Your task to perform on an android device: Search for Mexican restaurants on Maps Image 0: 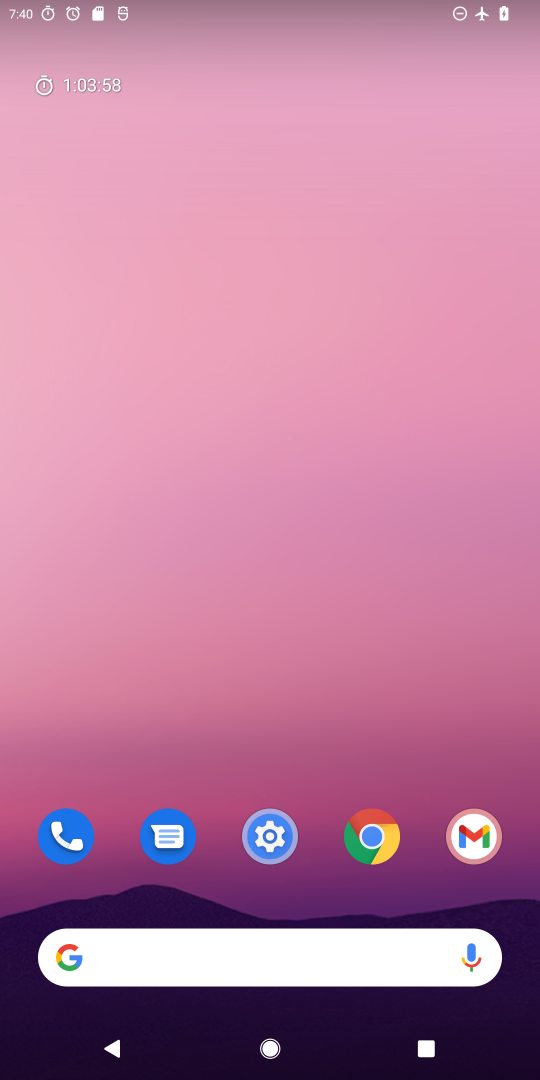
Step 0: drag from (320, 696) to (340, 16)
Your task to perform on an android device: Search for Mexican restaurants on Maps Image 1: 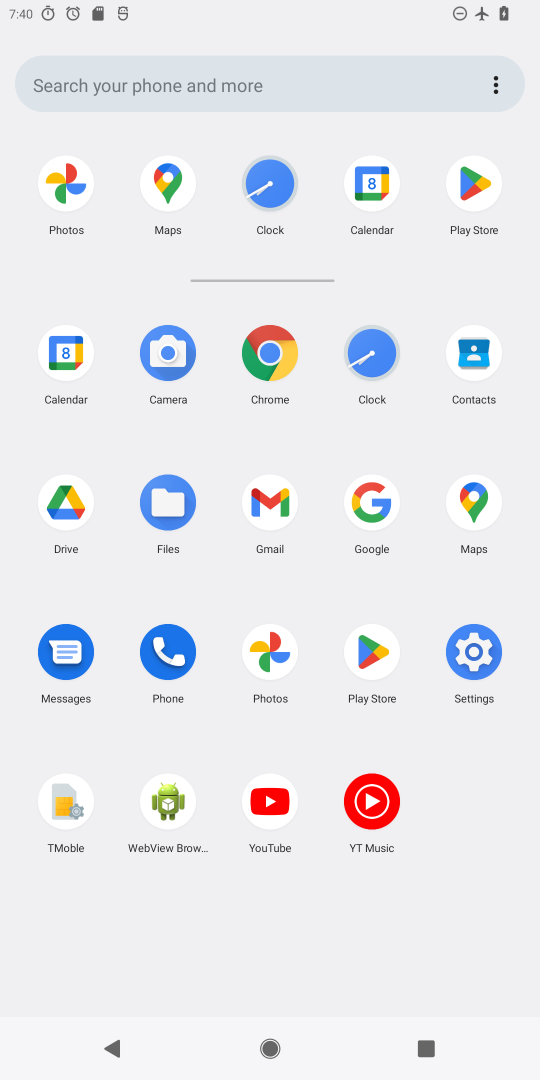
Step 1: click (472, 517)
Your task to perform on an android device: Search for Mexican restaurants on Maps Image 2: 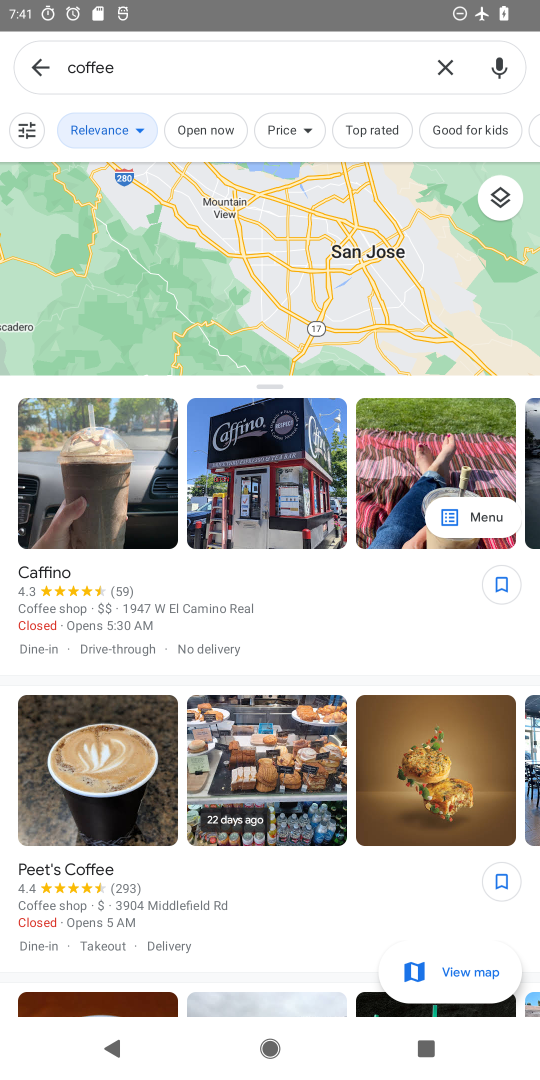
Step 2: click (445, 71)
Your task to perform on an android device: Search for Mexican restaurants on Maps Image 3: 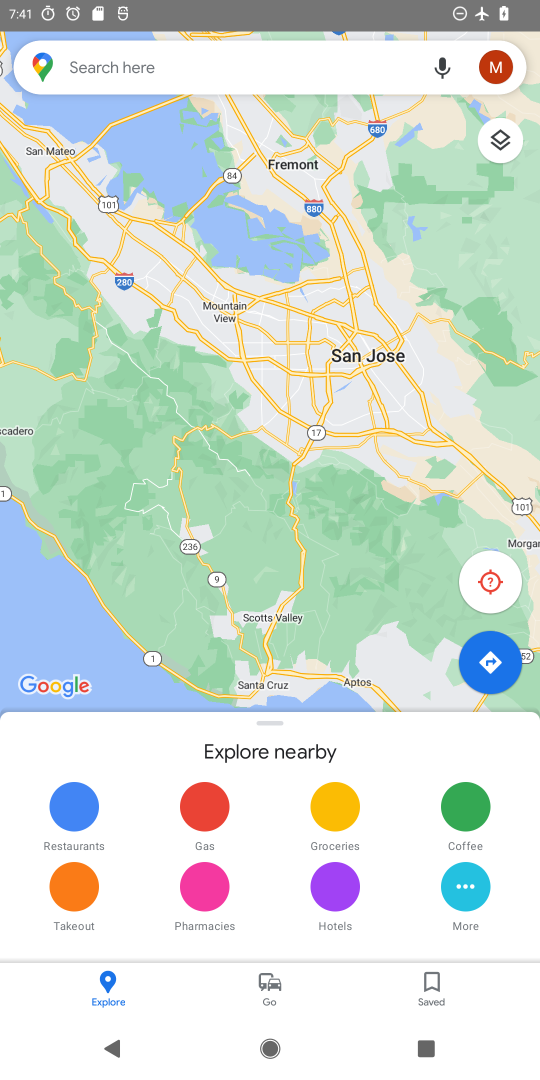
Step 3: click (255, 58)
Your task to perform on an android device: Search for Mexican restaurants on Maps Image 4: 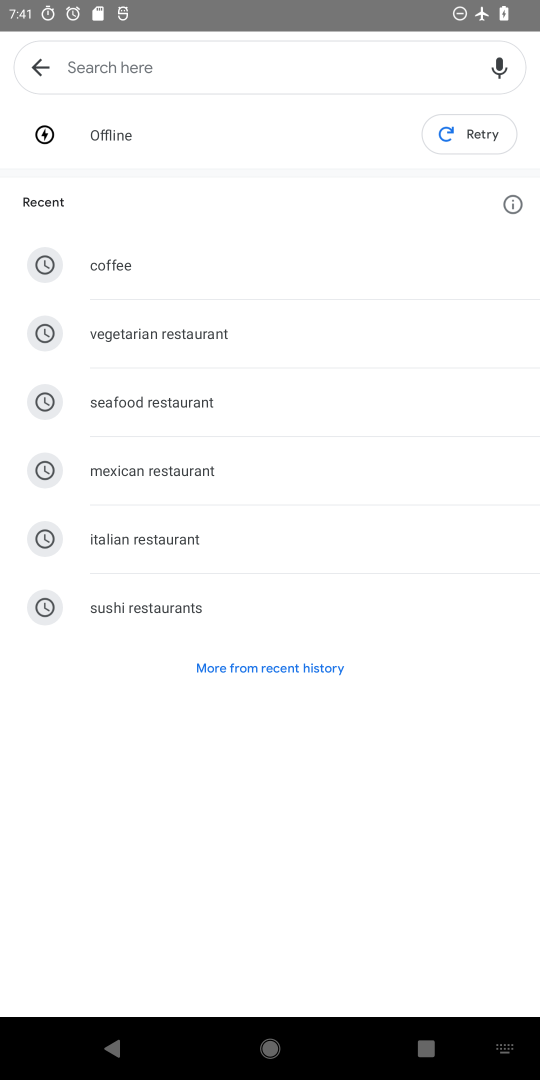
Step 4: click (247, 478)
Your task to perform on an android device: Search for Mexican restaurants on Maps Image 5: 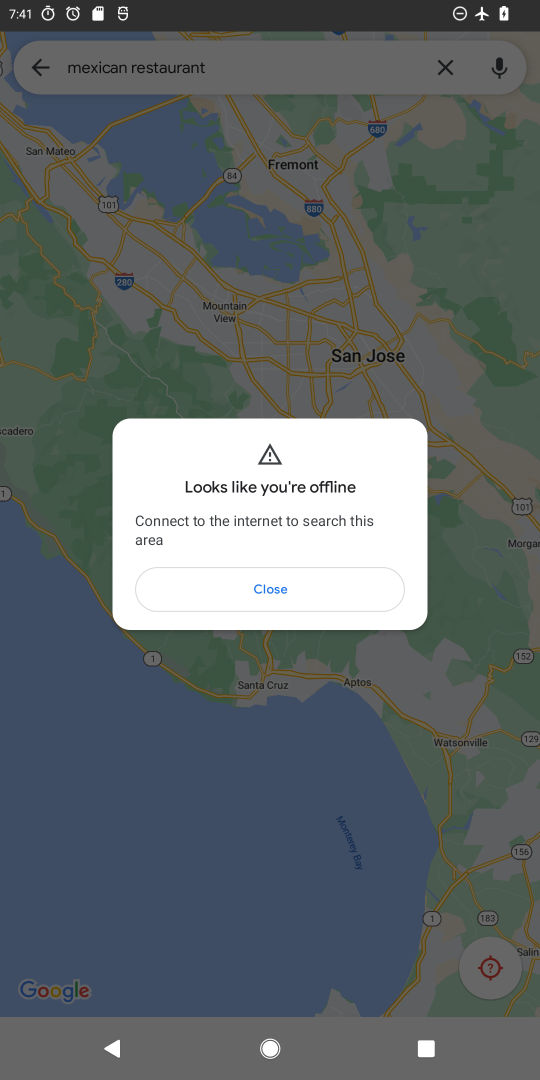
Step 5: click (253, 601)
Your task to perform on an android device: Search for Mexican restaurants on Maps Image 6: 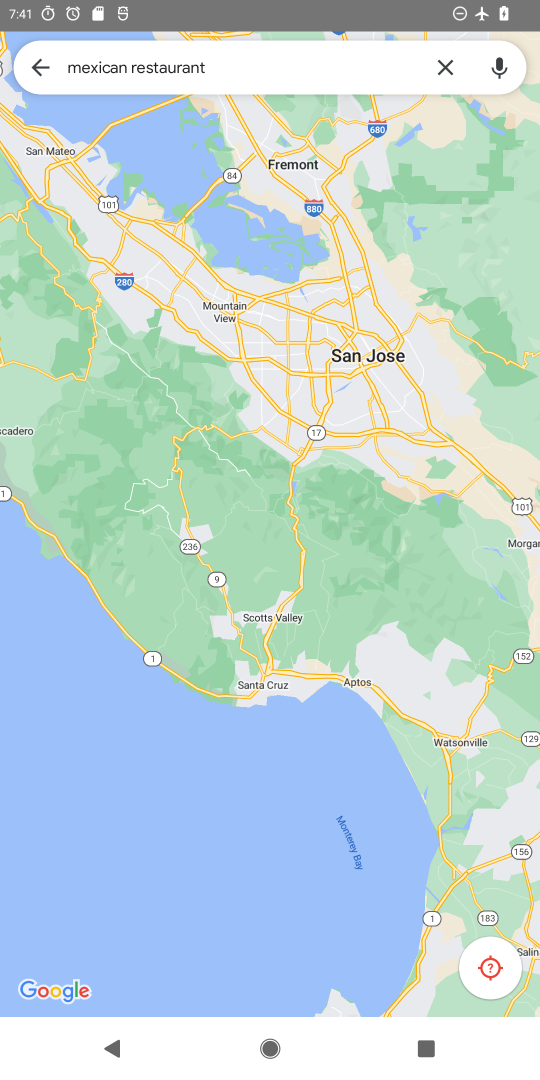
Step 6: task complete